Your task to perform on an android device: Open sound settings Image 0: 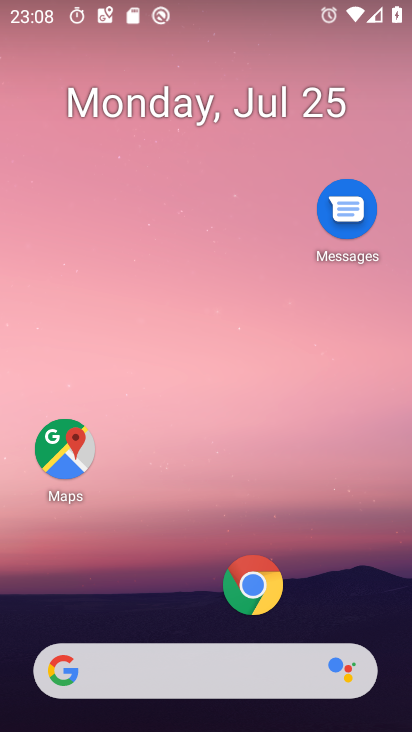
Step 0: press home button
Your task to perform on an android device: Open sound settings Image 1: 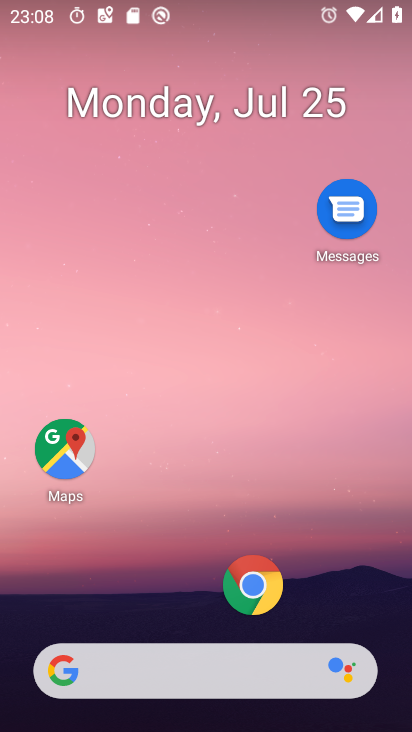
Step 1: drag from (192, 668) to (257, 156)
Your task to perform on an android device: Open sound settings Image 2: 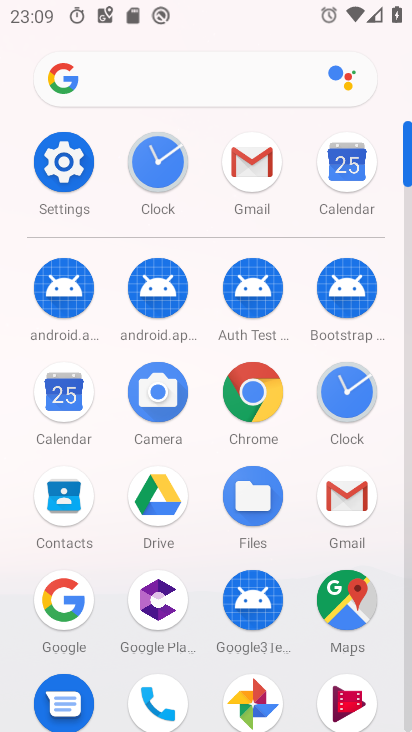
Step 2: click (61, 171)
Your task to perform on an android device: Open sound settings Image 3: 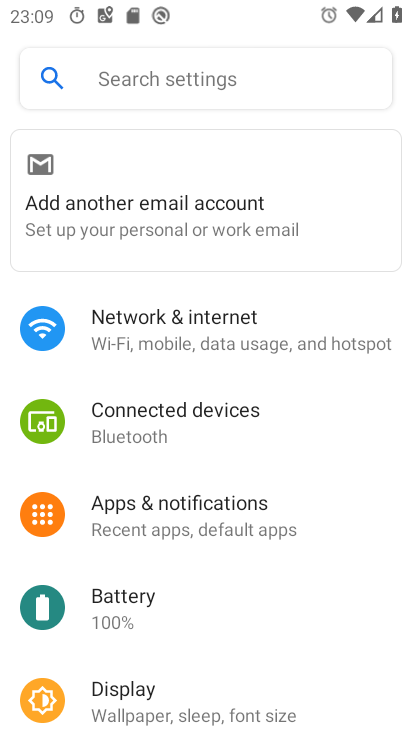
Step 3: drag from (202, 613) to (288, 136)
Your task to perform on an android device: Open sound settings Image 4: 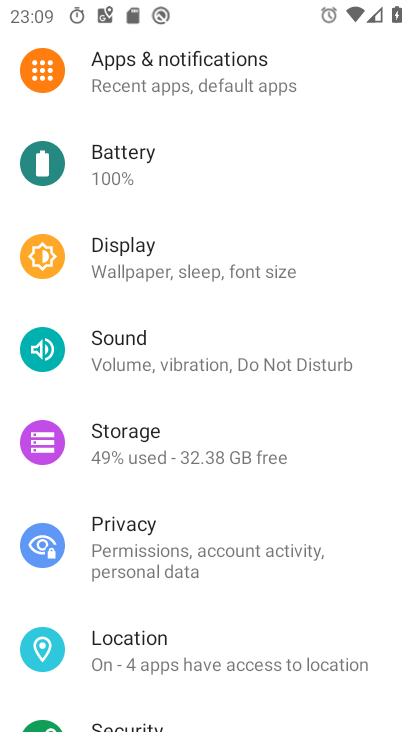
Step 4: click (116, 350)
Your task to perform on an android device: Open sound settings Image 5: 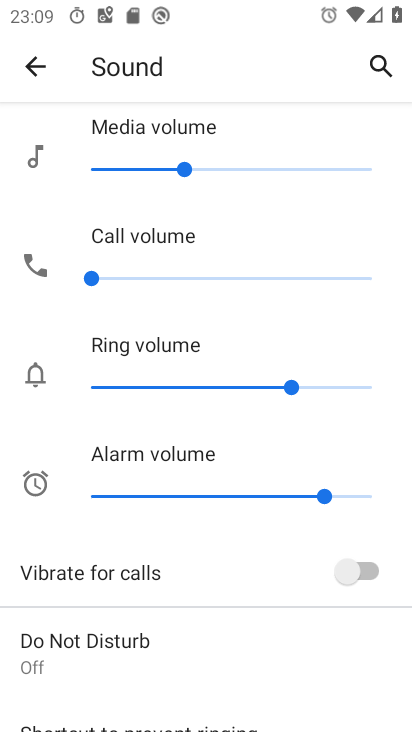
Step 5: task complete